Your task to perform on an android device: turn off translation in the chrome app Image 0: 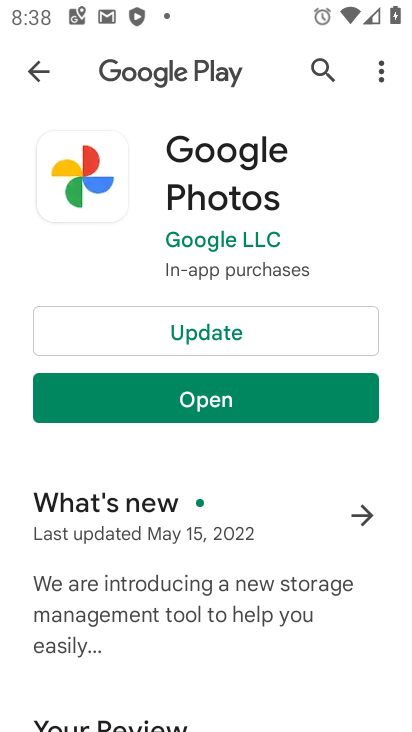
Step 0: press home button
Your task to perform on an android device: turn off translation in the chrome app Image 1: 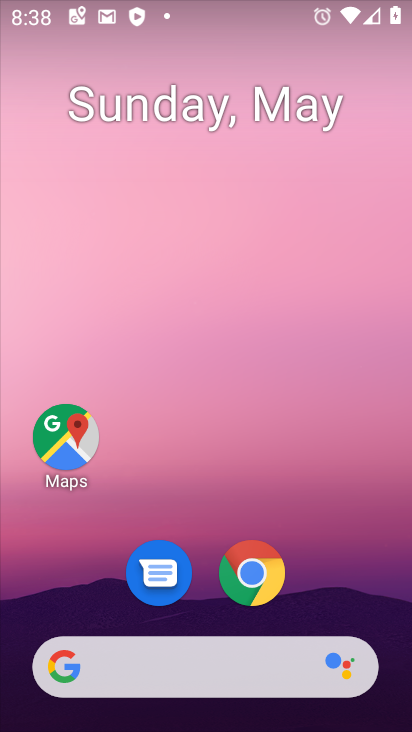
Step 1: click (272, 576)
Your task to perform on an android device: turn off translation in the chrome app Image 2: 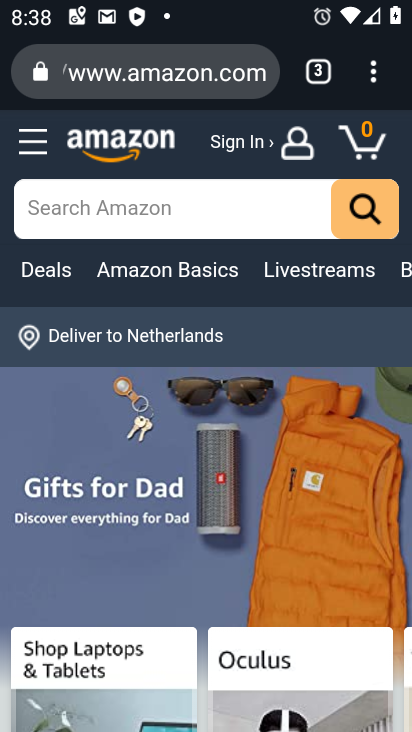
Step 2: click (372, 85)
Your task to perform on an android device: turn off translation in the chrome app Image 3: 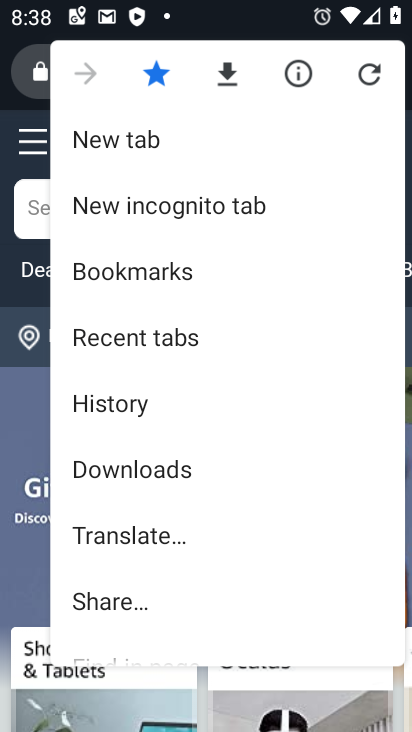
Step 3: drag from (229, 505) to (286, 110)
Your task to perform on an android device: turn off translation in the chrome app Image 4: 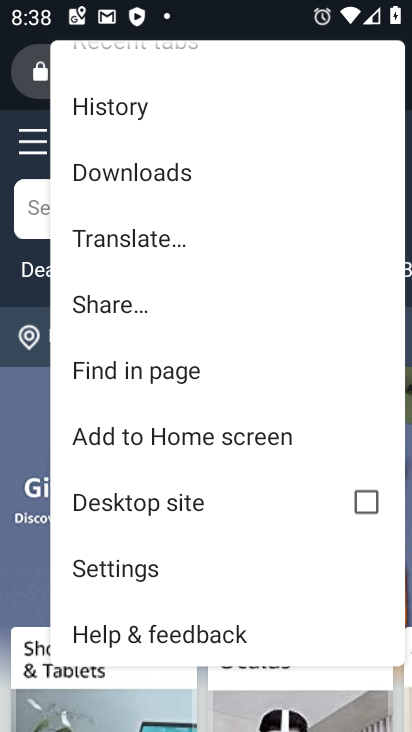
Step 4: click (126, 560)
Your task to perform on an android device: turn off translation in the chrome app Image 5: 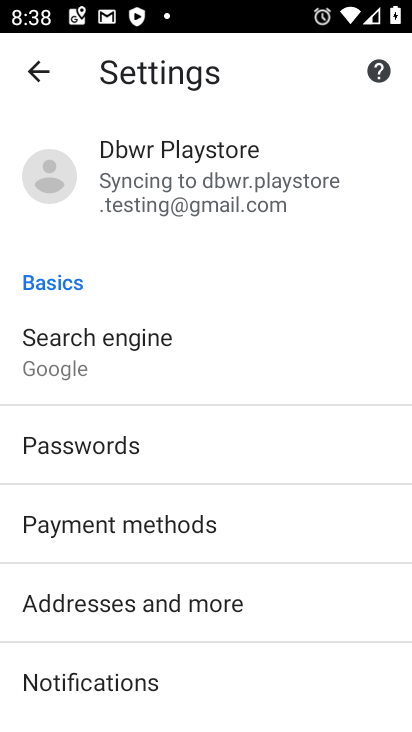
Step 5: drag from (235, 559) to (245, 108)
Your task to perform on an android device: turn off translation in the chrome app Image 6: 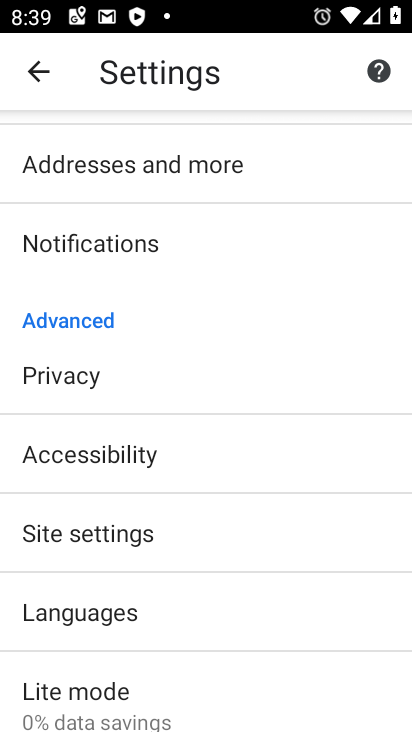
Step 6: click (261, 604)
Your task to perform on an android device: turn off translation in the chrome app Image 7: 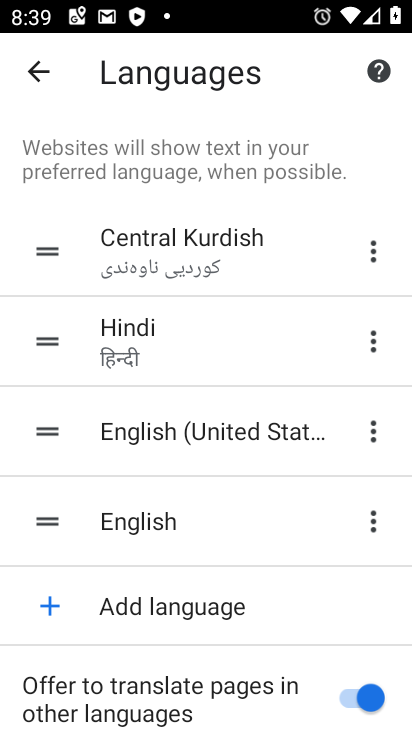
Step 7: click (355, 692)
Your task to perform on an android device: turn off translation in the chrome app Image 8: 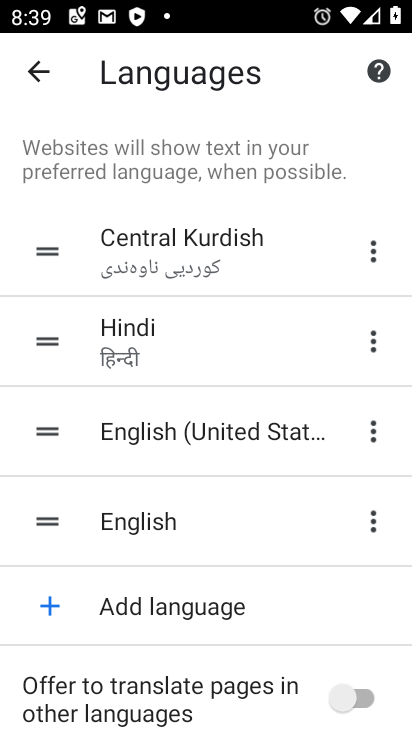
Step 8: task complete